Your task to perform on an android device: Open Amazon Image 0: 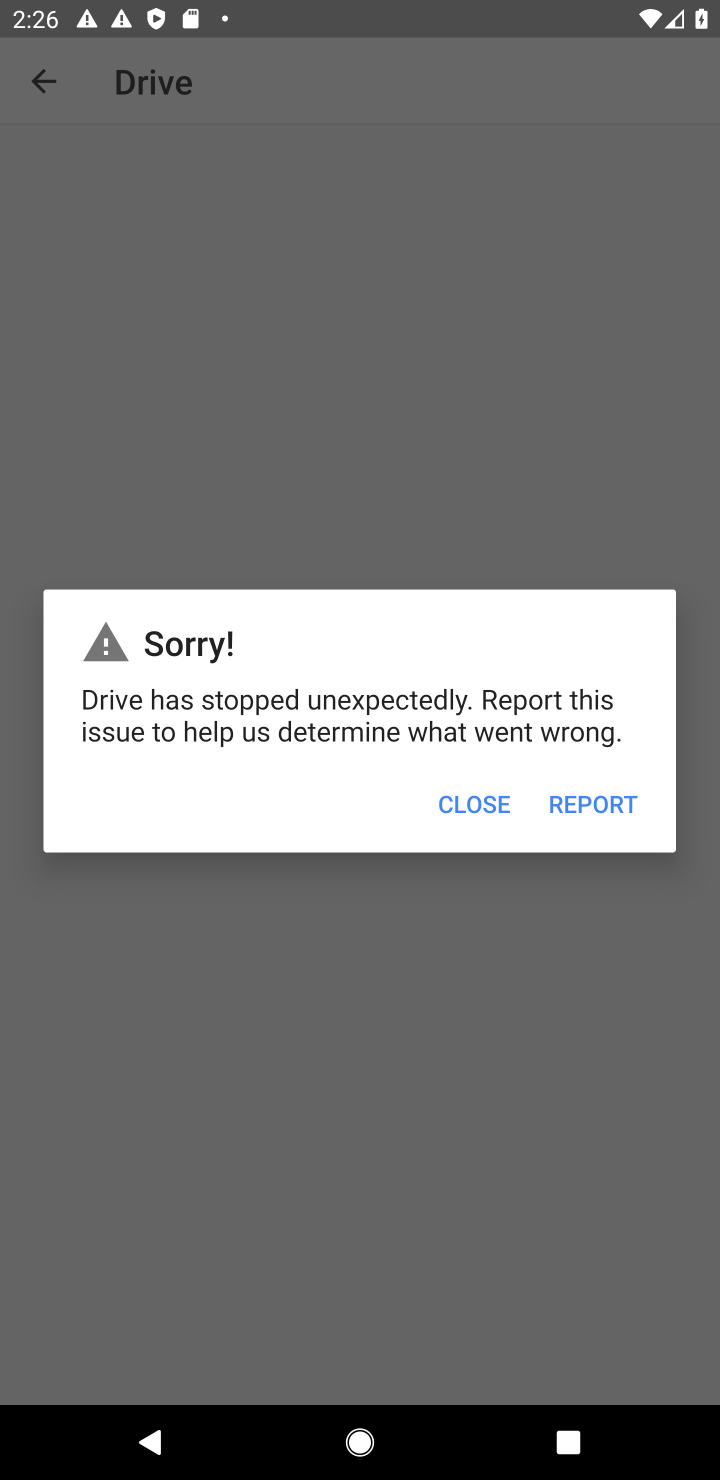
Step 0: press home button
Your task to perform on an android device: Open Amazon Image 1: 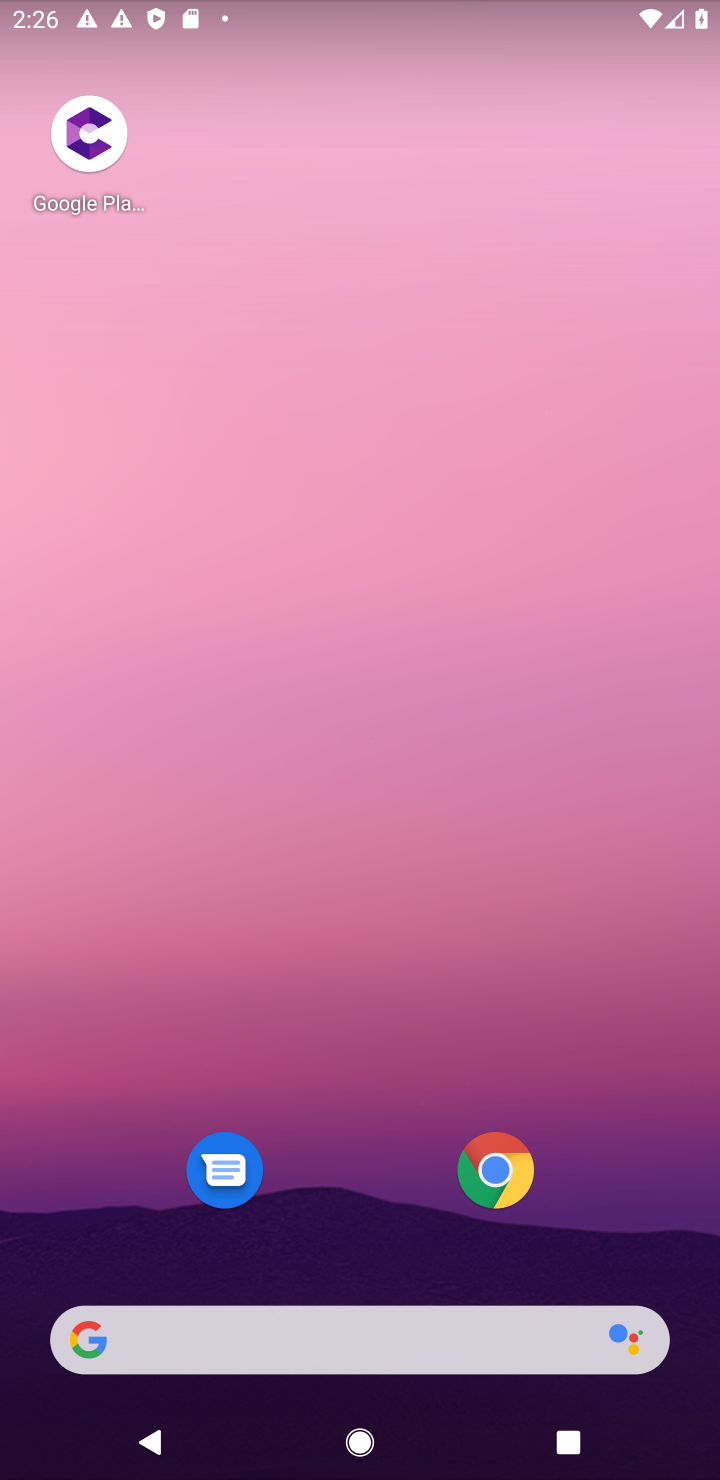
Step 1: click (490, 1157)
Your task to perform on an android device: Open Amazon Image 2: 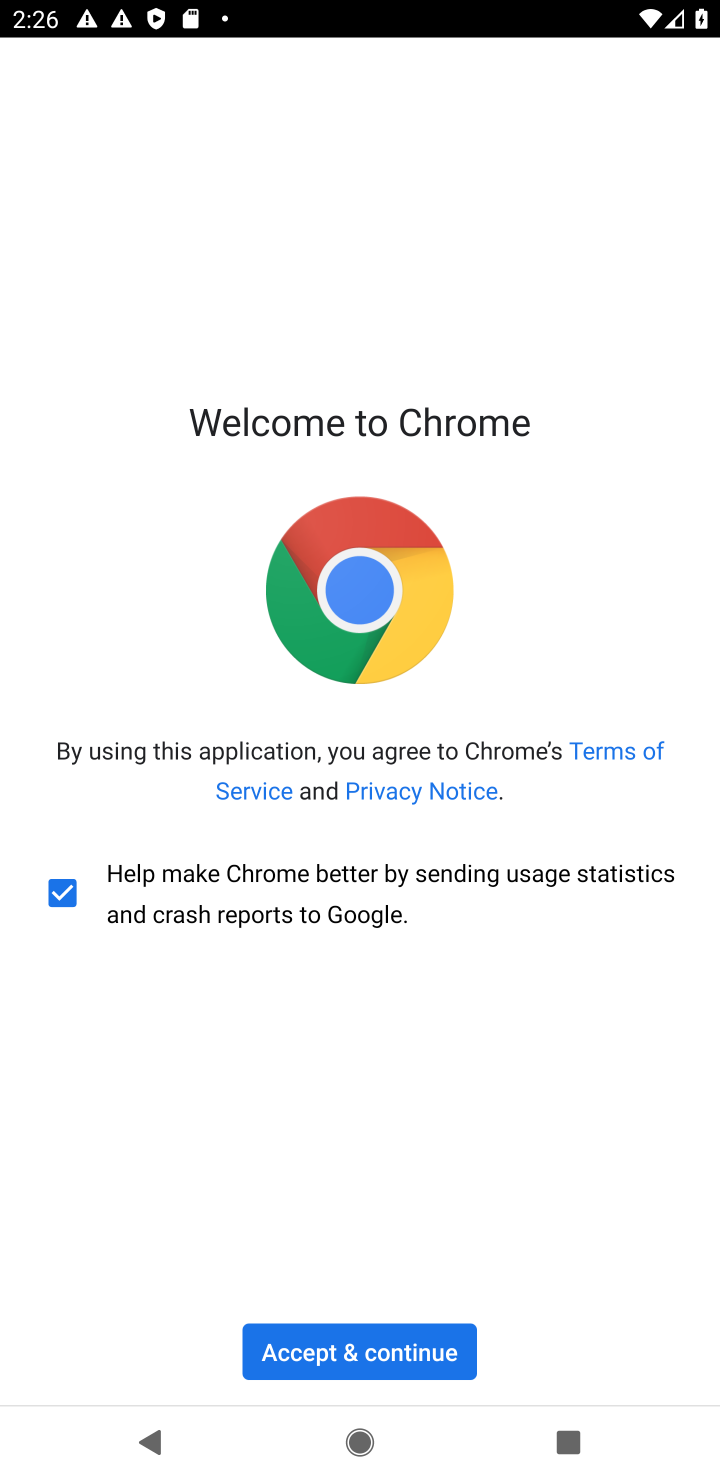
Step 2: click (360, 1360)
Your task to perform on an android device: Open Amazon Image 3: 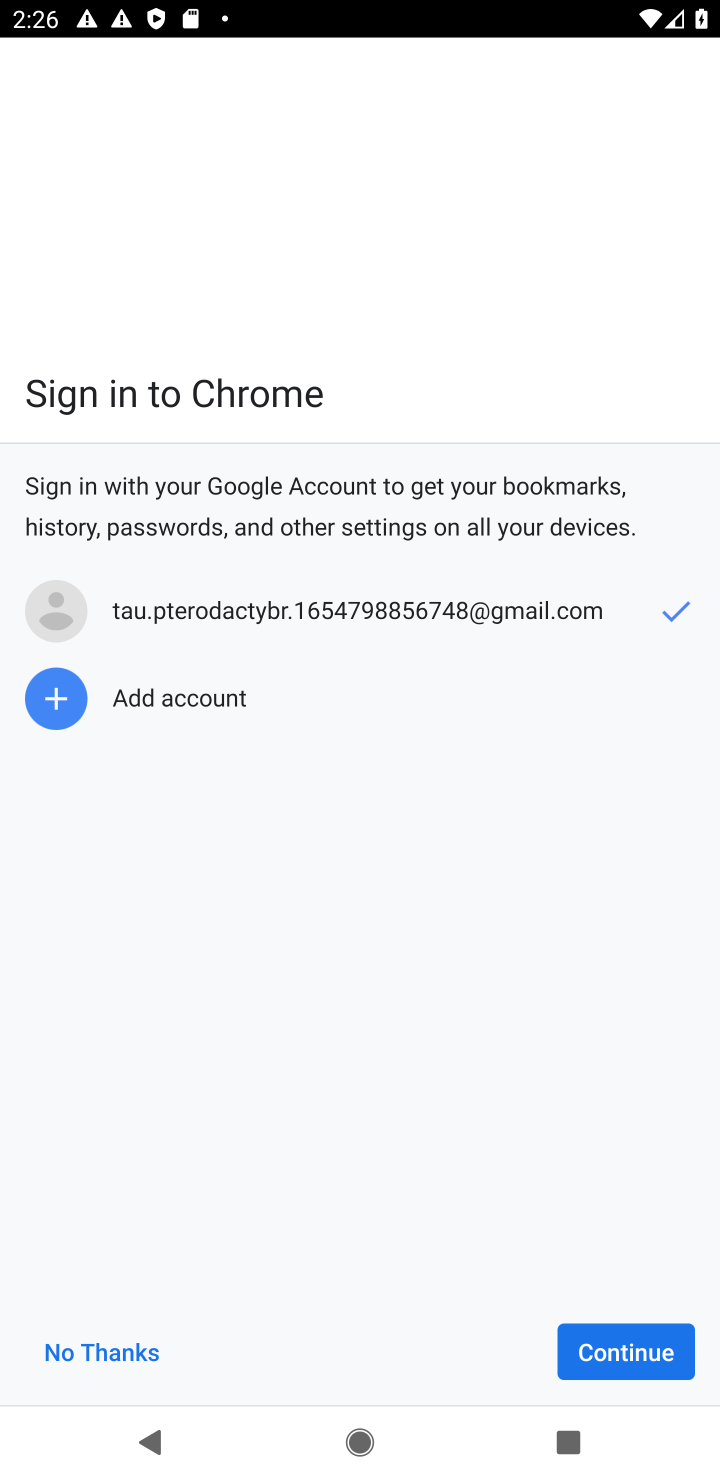
Step 3: click (631, 1364)
Your task to perform on an android device: Open Amazon Image 4: 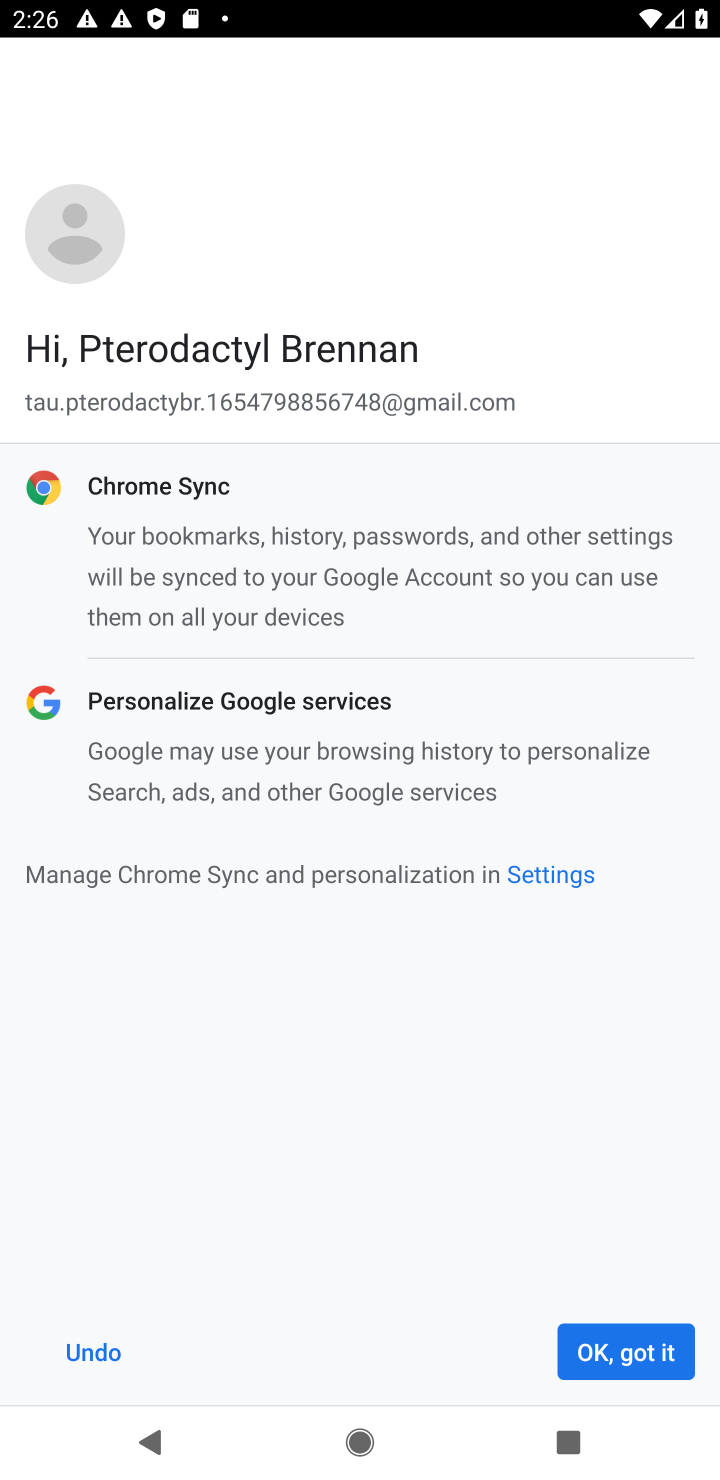
Step 4: click (631, 1364)
Your task to perform on an android device: Open Amazon Image 5: 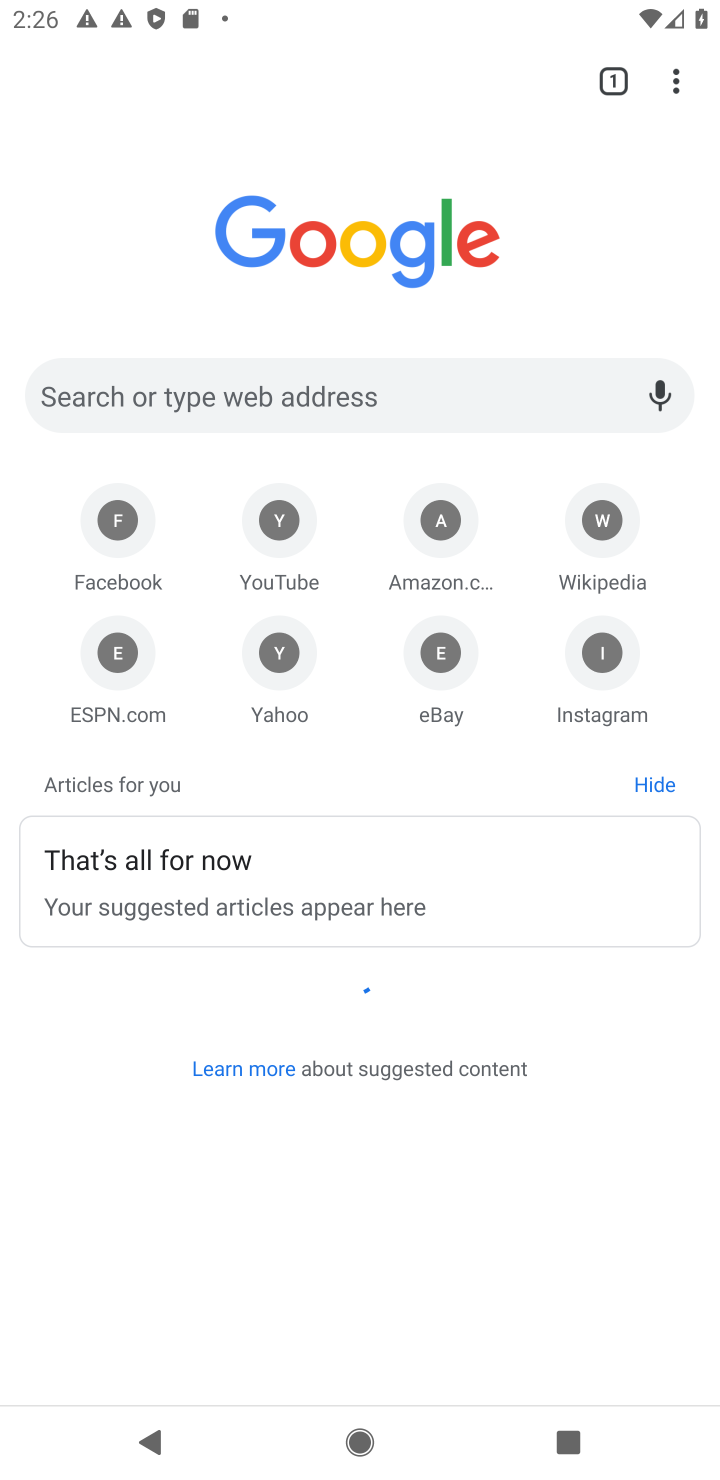
Step 5: click (445, 527)
Your task to perform on an android device: Open Amazon Image 6: 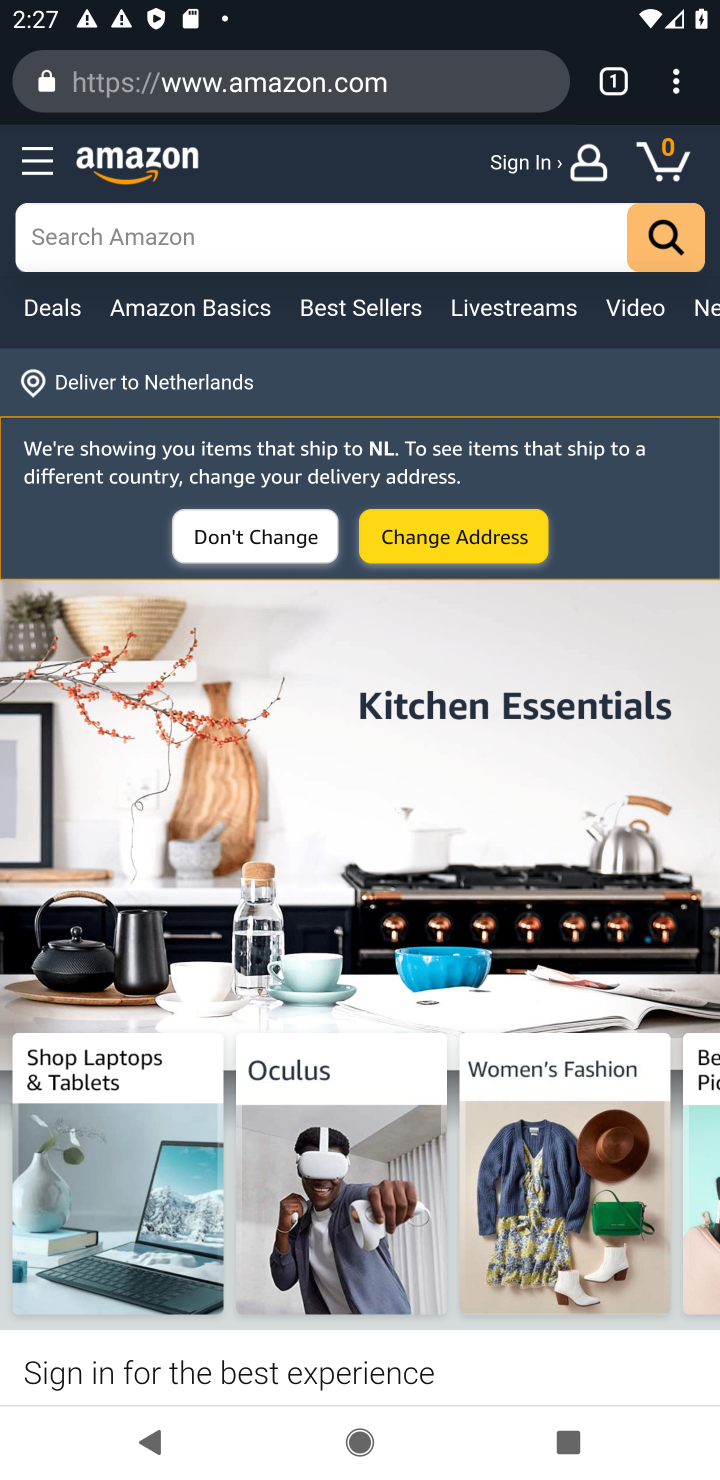
Step 6: task complete